Your task to perform on an android device: open app "Move to iOS" (install if not already installed) and go to login screen Image 0: 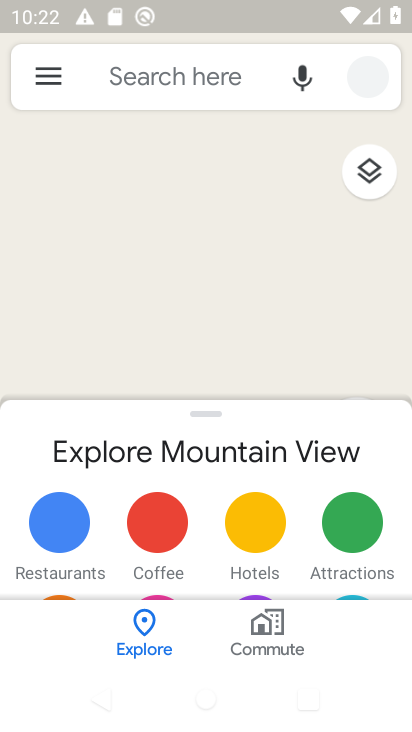
Step 0: press home button
Your task to perform on an android device: open app "Move to iOS" (install if not already installed) and go to login screen Image 1: 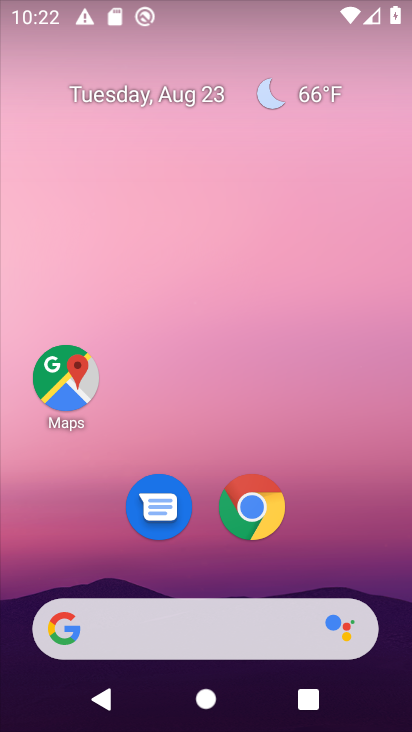
Step 1: drag from (394, 668) to (327, 119)
Your task to perform on an android device: open app "Move to iOS" (install if not already installed) and go to login screen Image 2: 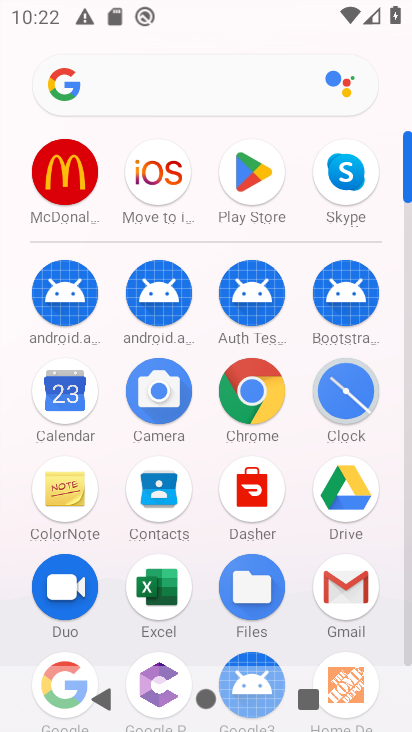
Step 2: click (407, 637)
Your task to perform on an android device: open app "Move to iOS" (install if not already installed) and go to login screen Image 3: 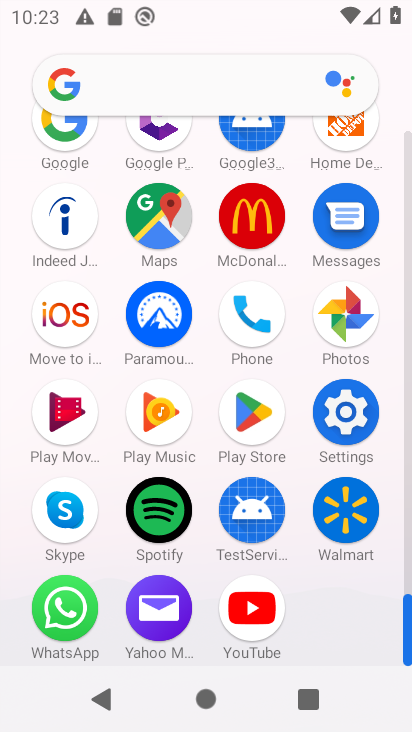
Step 3: click (407, 419)
Your task to perform on an android device: open app "Move to iOS" (install if not already installed) and go to login screen Image 4: 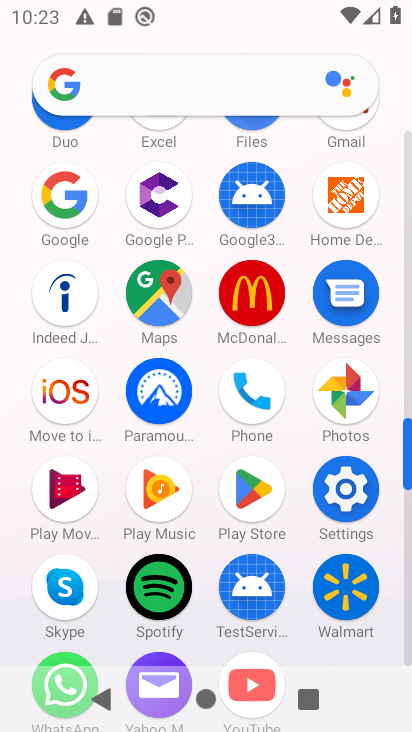
Step 4: click (255, 495)
Your task to perform on an android device: open app "Move to iOS" (install if not already installed) and go to login screen Image 5: 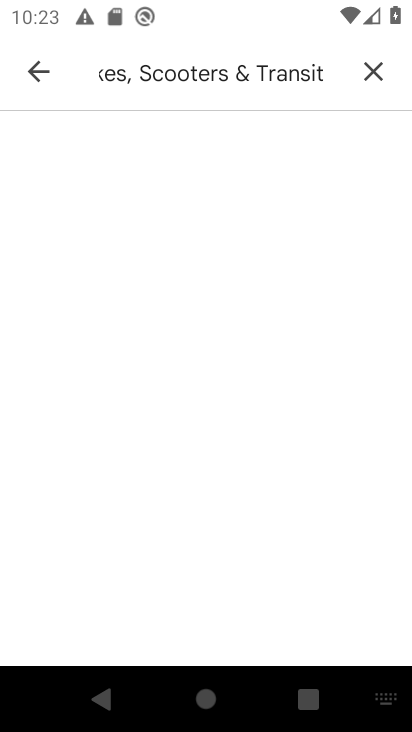
Step 5: click (373, 67)
Your task to perform on an android device: open app "Move to iOS" (install if not already installed) and go to login screen Image 6: 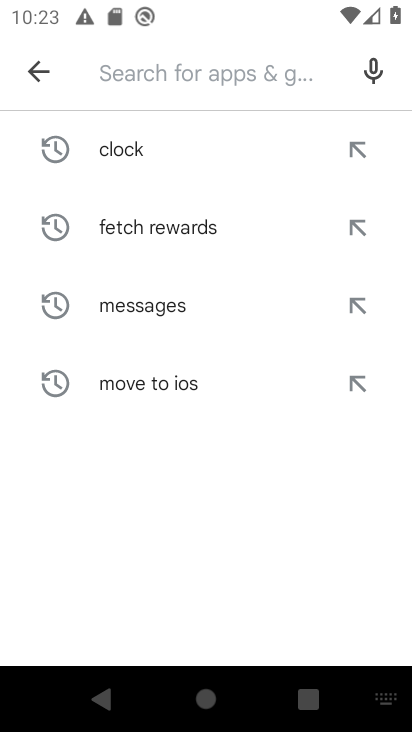
Step 6: type "Move to iOS"
Your task to perform on an android device: open app "Move to iOS" (install if not already installed) and go to login screen Image 7: 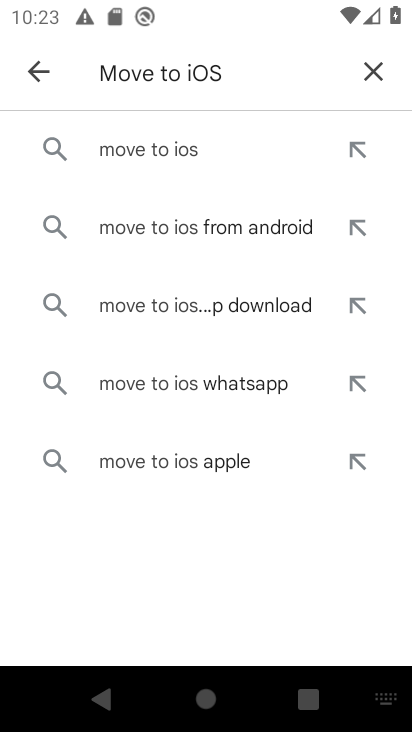
Step 7: click (138, 159)
Your task to perform on an android device: open app "Move to iOS" (install if not already installed) and go to login screen Image 8: 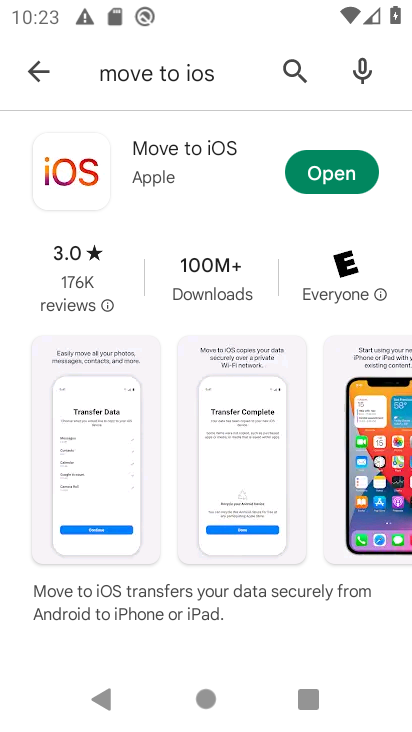
Step 8: click (344, 171)
Your task to perform on an android device: open app "Move to iOS" (install if not already installed) and go to login screen Image 9: 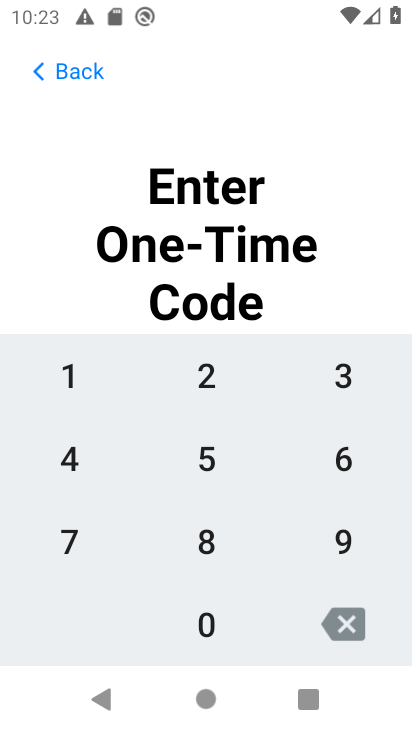
Step 9: click (37, 69)
Your task to perform on an android device: open app "Move to iOS" (install if not already installed) and go to login screen Image 10: 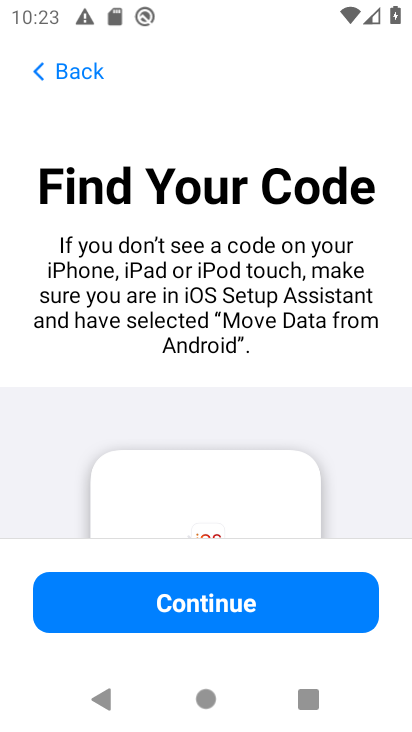
Step 10: click (190, 595)
Your task to perform on an android device: open app "Move to iOS" (install if not already installed) and go to login screen Image 11: 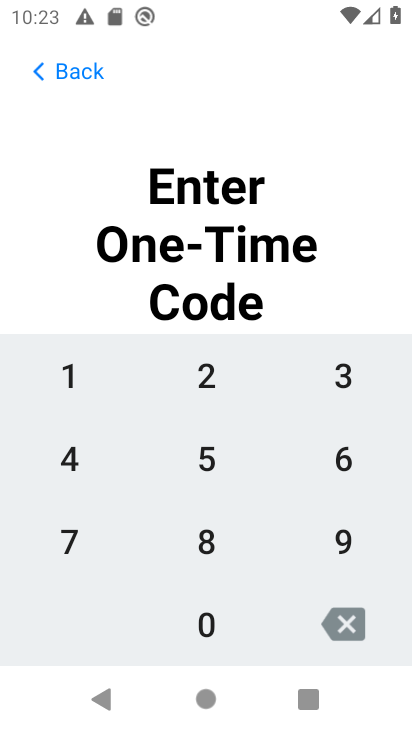
Step 11: task complete